Your task to perform on an android device: empty trash in the gmail app Image 0: 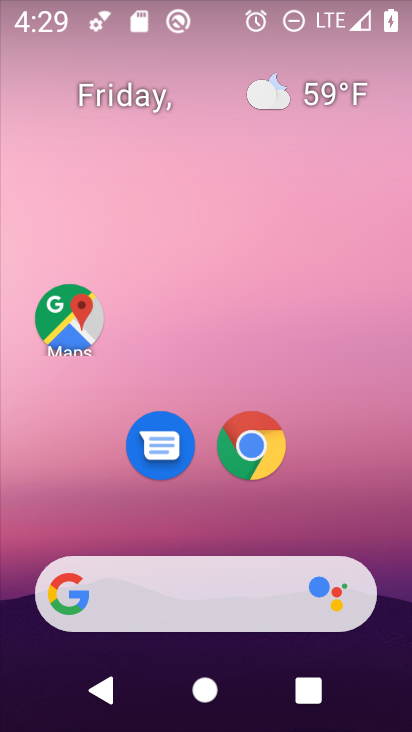
Step 0: drag from (394, 532) to (378, 8)
Your task to perform on an android device: empty trash in the gmail app Image 1: 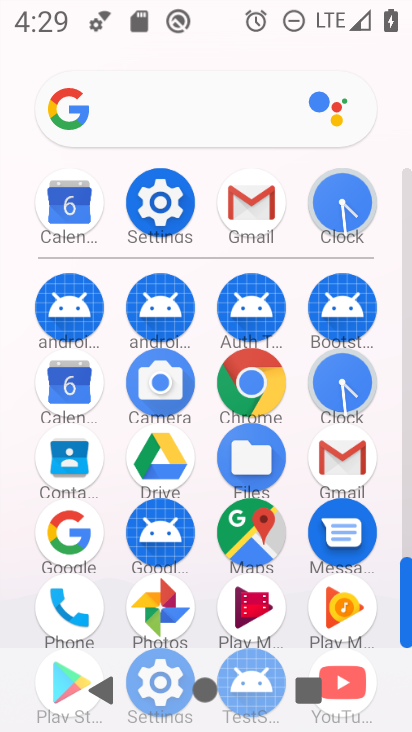
Step 1: click (337, 456)
Your task to perform on an android device: empty trash in the gmail app Image 2: 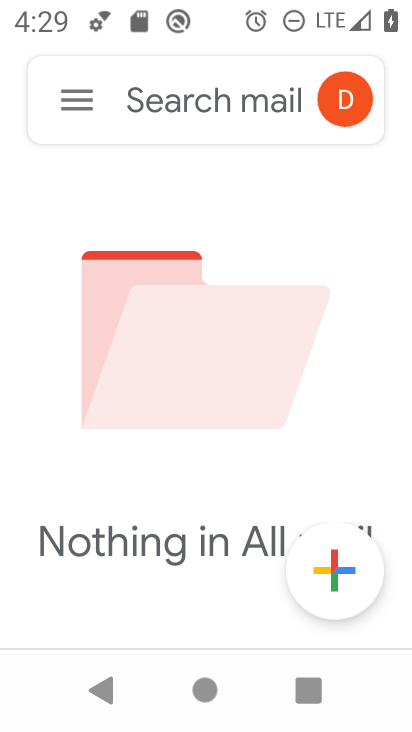
Step 2: click (82, 99)
Your task to perform on an android device: empty trash in the gmail app Image 3: 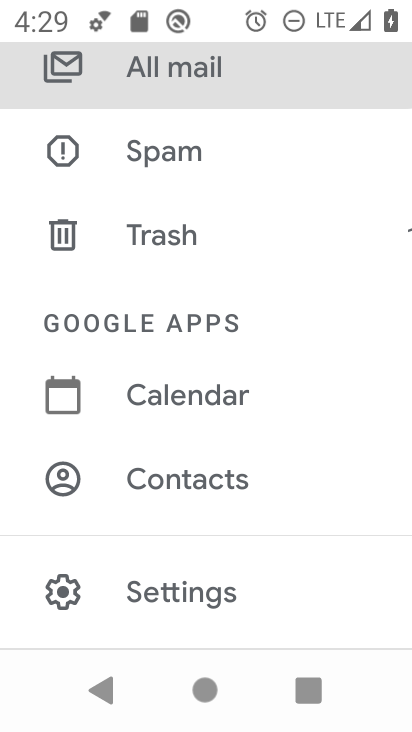
Step 3: click (144, 230)
Your task to perform on an android device: empty trash in the gmail app Image 4: 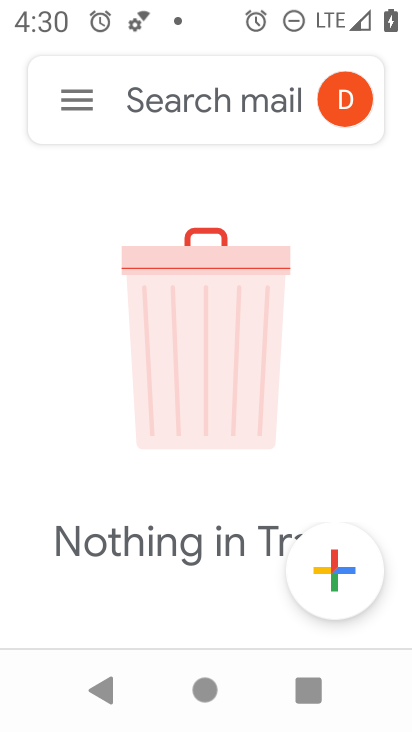
Step 4: task complete